Your task to perform on an android device: Go to CNN.com Image 0: 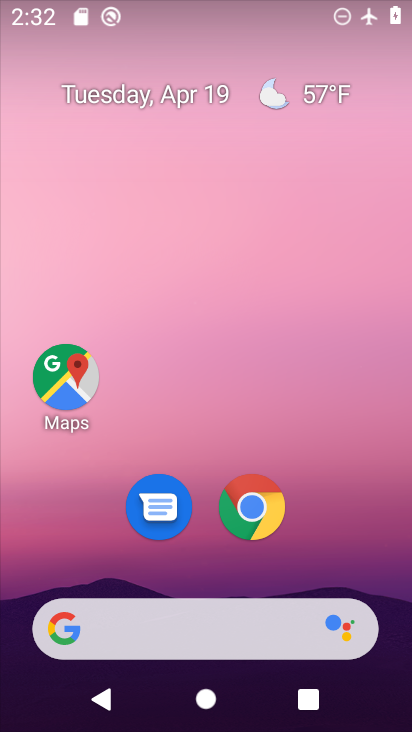
Step 0: click (257, 524)
Your task to perform on an android device: Go to CNN.com Image 1: 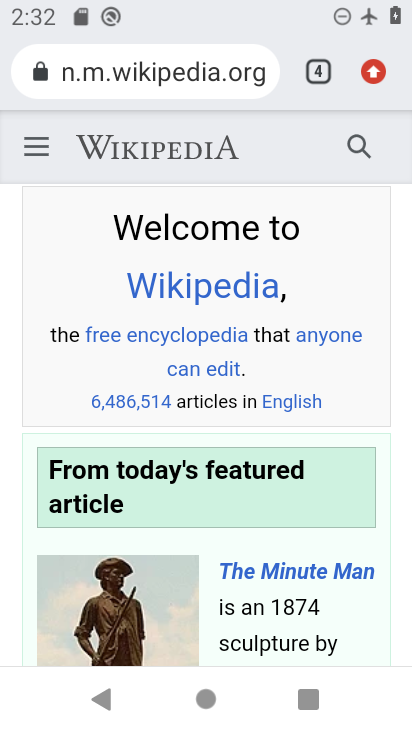
Step 1: click (156, 57)
Your task to perform on an android device: Go to CNN.com Image 2: 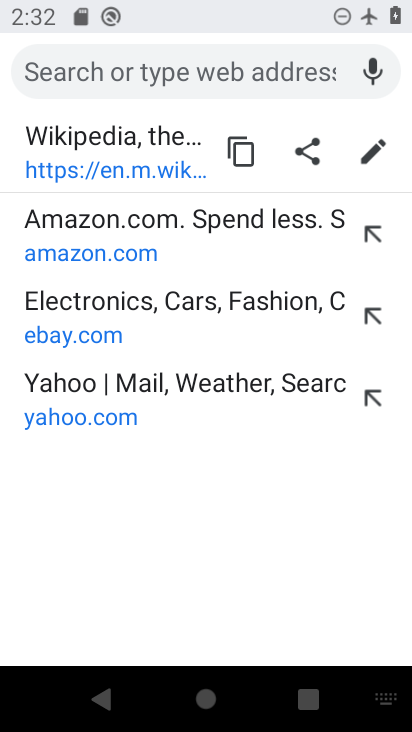
Step 2: type "cnn.com"
Your task to perform on an android device: Go to CNN.com Image 3: 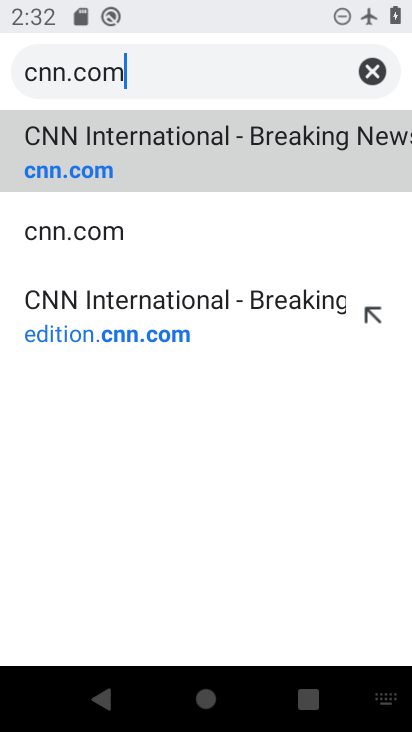
Step 3: click (174, 145)
Your task to perform on an android device: Go to CNN.com Image 4: 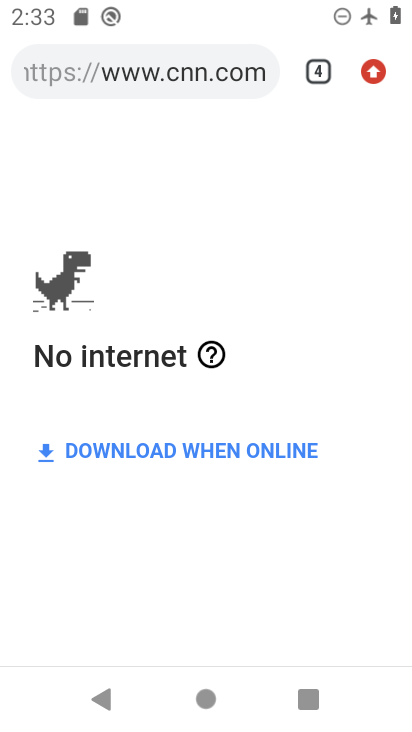
Step 4: task complete